Your task to perform on an android device: check data usage Image 0: 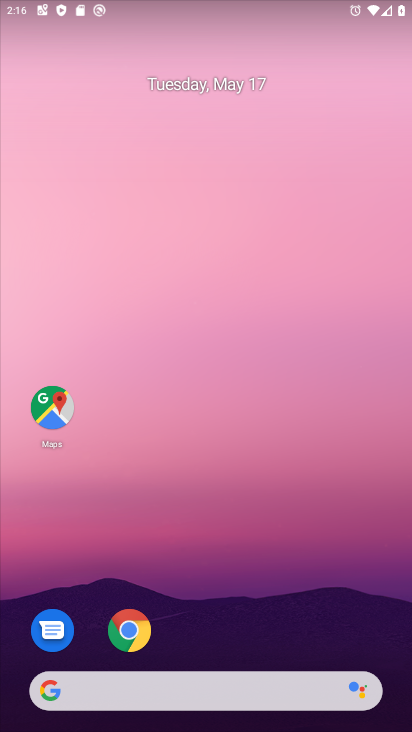
Step 0: drag from (300, 643) to (308, 228)
Your task to perform on an android device: check data usage Image 1: 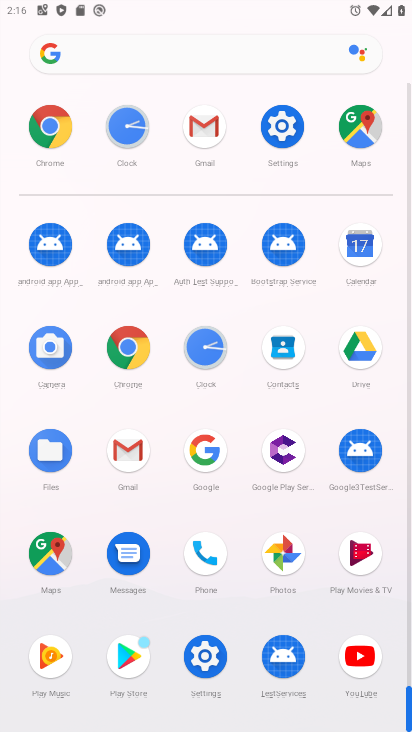
Step 1: click (279, 132)
Your task to perform on an android device: check data usage Image 2: 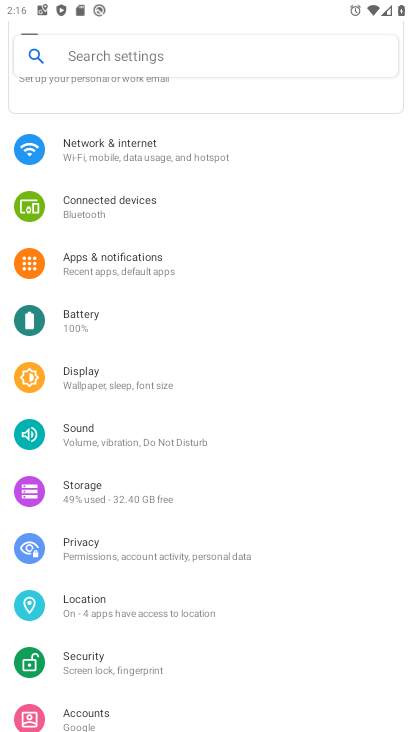
Step 2: click (231, 160)
Your task to perform on an android device: check data usage Image 3: 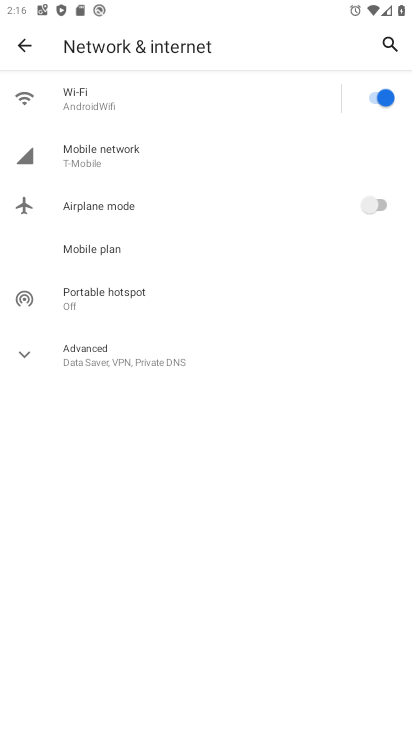
Step 3: click (221, 160)
Your task to perform on an android device: check data usage Image 4: 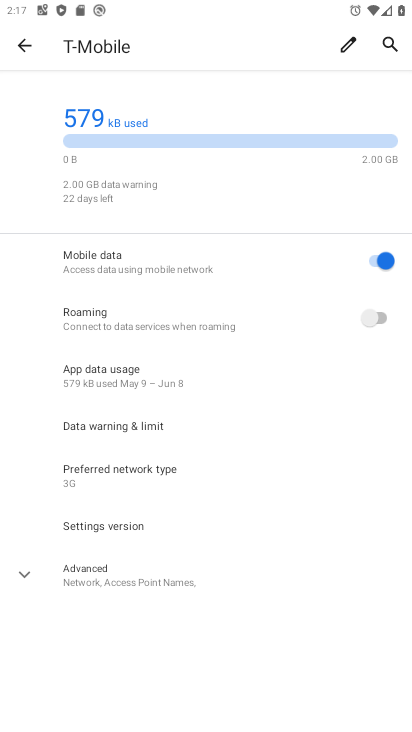
Step 4: task complete